Your task to perform on an android device: remove spam from my inbox in the gmail app Image 0: 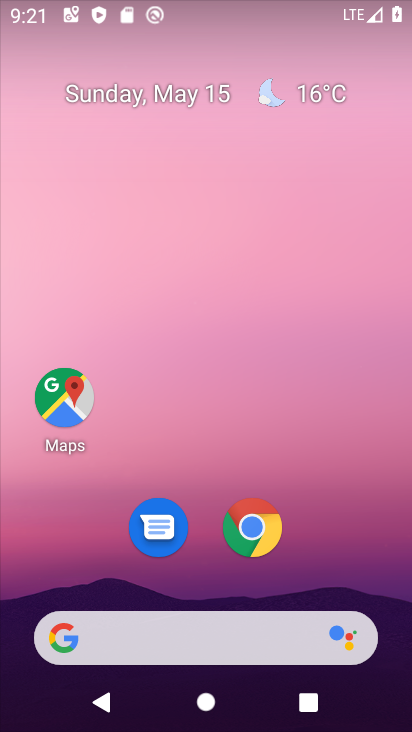
Step 0: drag from (367, 582) to (353, 4)
Your task to perform on an android device: remove spam from my inbox in the gmail app Image 1: 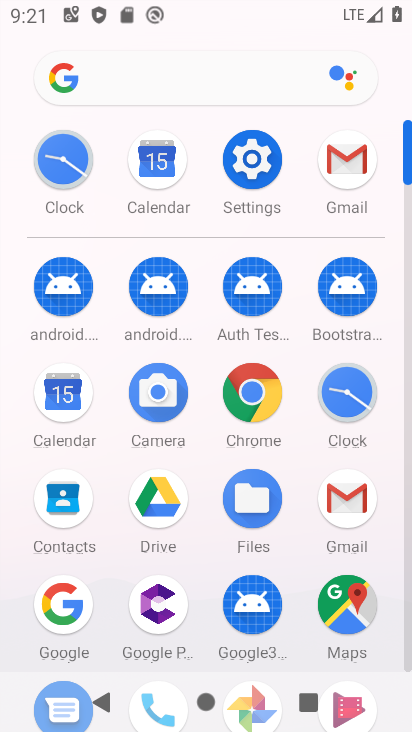
Step 1: click (345, 168)
Your task to perform on an android device: remove spam from my inbox in the gmail app Image 2: 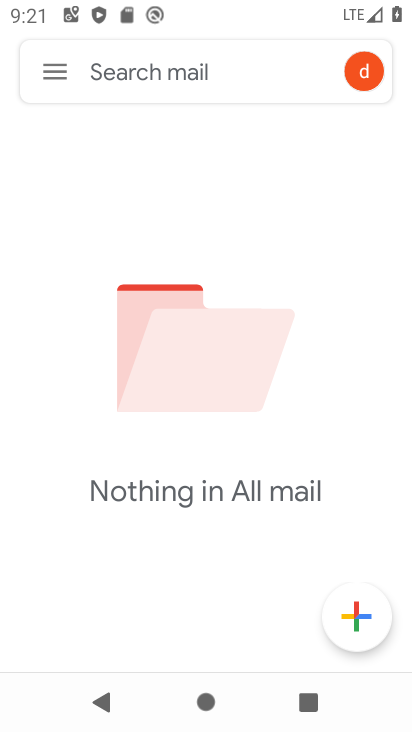
Step 2: click (57, 75)
Your task to perform on an android device: remove spam from my inbox in the gmail app Image 3: 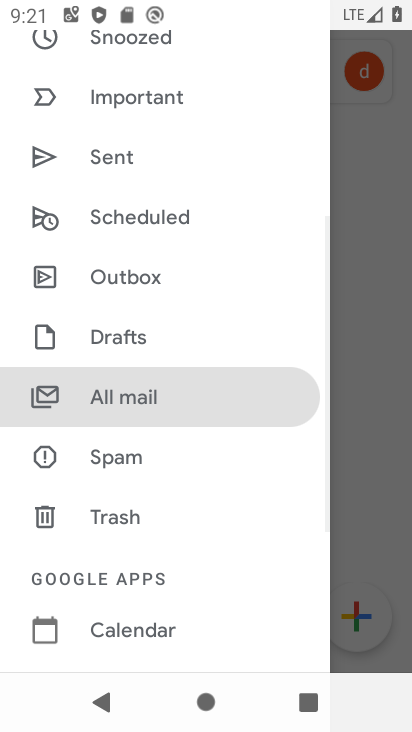
Step 3: click (108, 457)
Your task to perform on an android device: remove spam from my inbox in the gmail app Image 4: 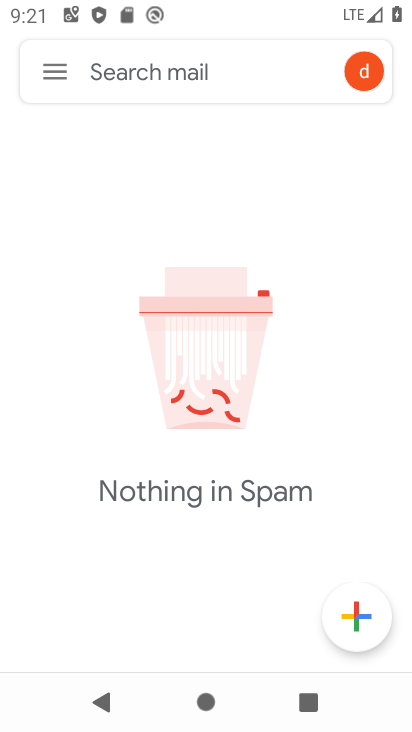
Step 4: task complete